Your task to perform on an android device: Open Reddit.com Image 0: 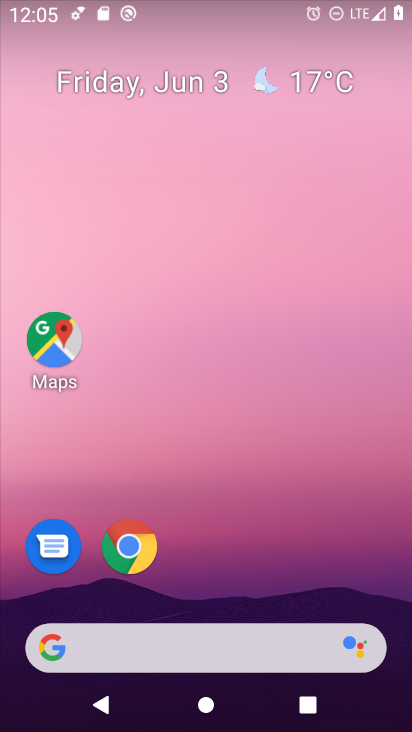
Step 0: drag from (224, 530) to (217, 51)
Your task to perform on an android device: Open Reddit.com Image 1: 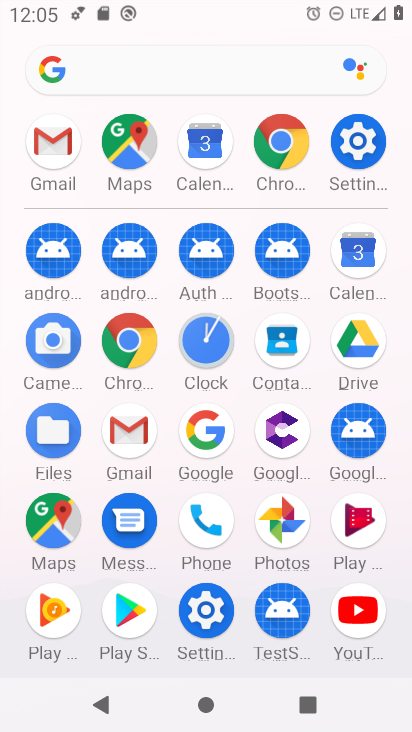
Step 1: drag from (4, 531) to (11, 194)
Your task to perform on an android device: Open Reddit.com Image 2: 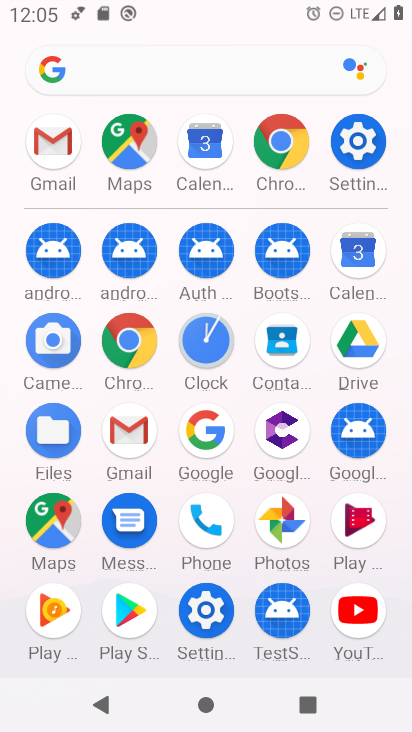
Step 2: click (128, 333)
Your task to perform on an android device: Open Reddit.com Image 3: 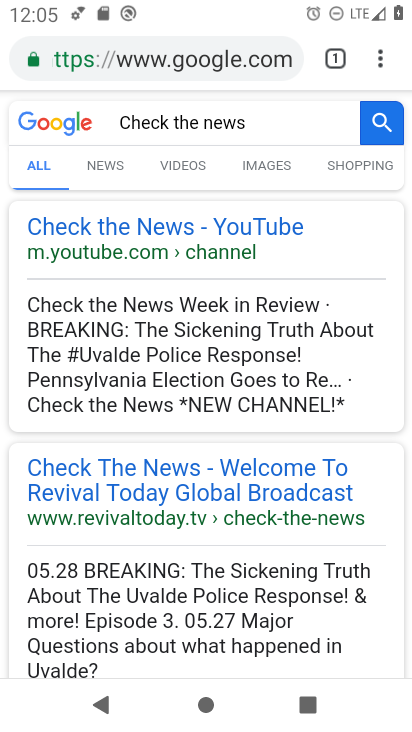
Step 3: click (176, 68)
Your task to perform on an android device: Open Reddit.com Image 4: 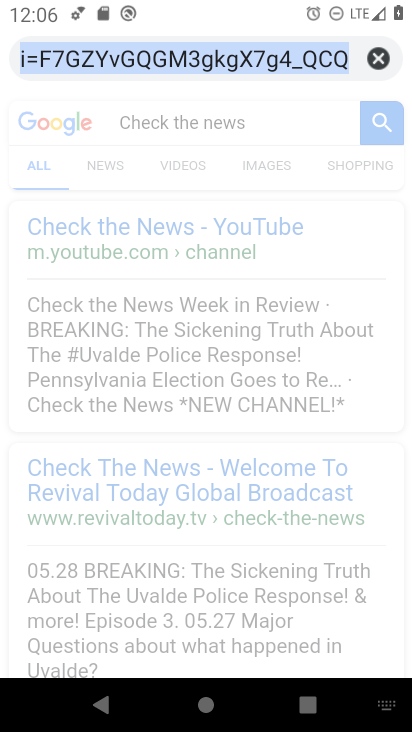
Step 4: click (373, 52)
Your task to perform on an android device: Open Reddit.com Image 5: 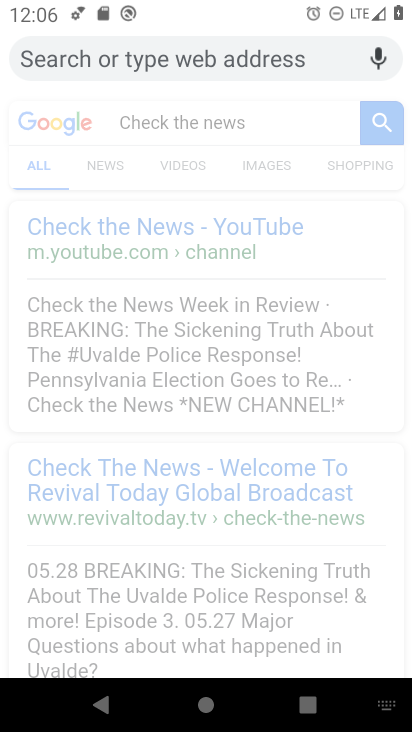
Step 5: type "Reddit.com"
Your task to perform on an android device: Open Reddit.com Image 6: 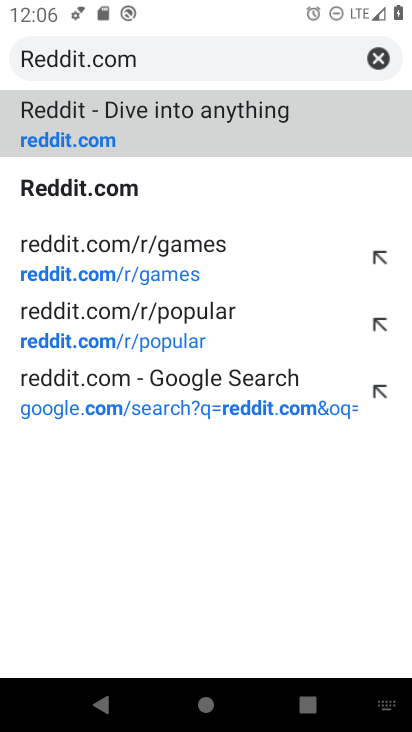
Step 6: click (154, 125)
Your task to perform on an android device: Open Reddit.com Image 7: 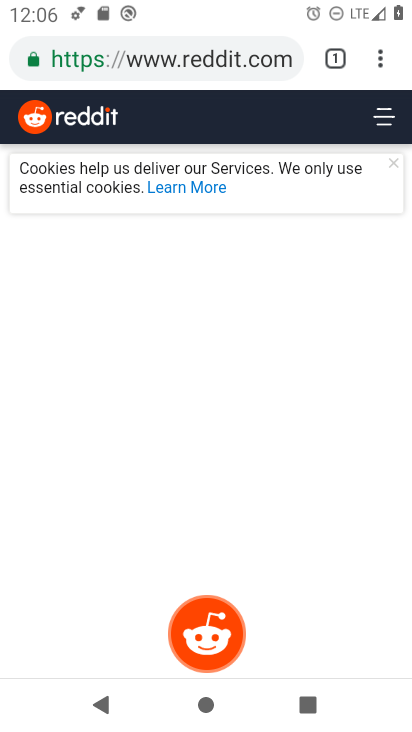
Step 7: task complete